Your task to perform on an android device: When is my next appointment? Image 0: 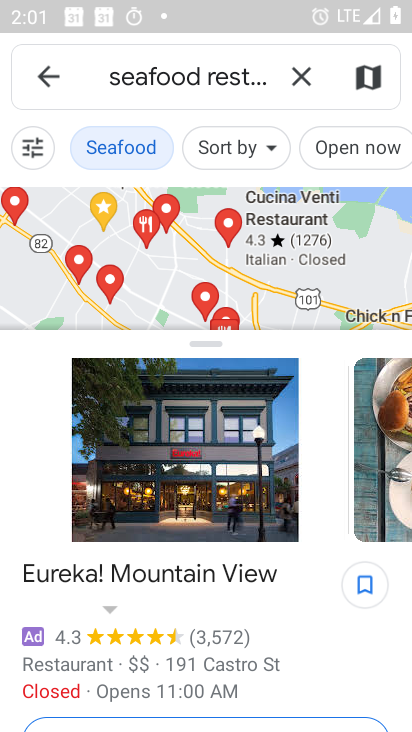
Step 0: press home button
Your task to perform on an android device: When is my next appointment? Image 1: 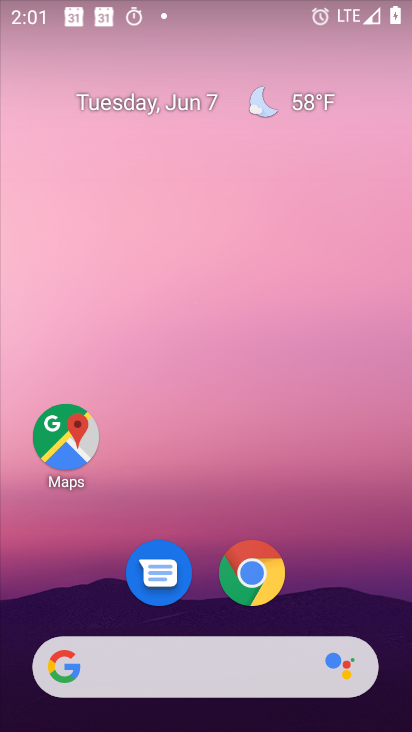
Step 1: drag from (322, 591) to (321, 121)
Your task to perform on an android device: When is my next appointment? Image 2: 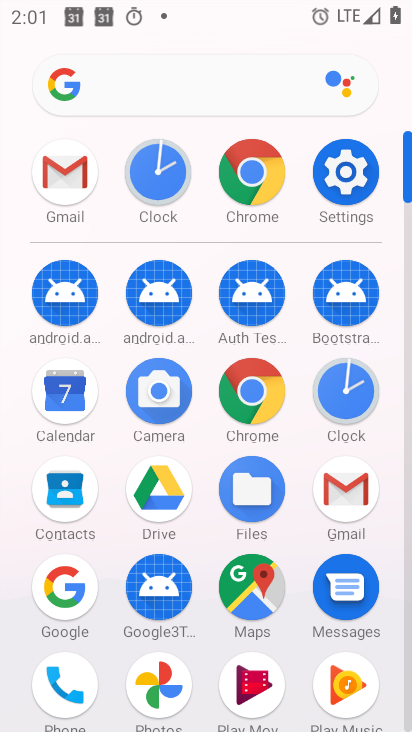
Step 2: click (63, 402)
Your task to perform on an android device: When is my next appointment? Image 3: 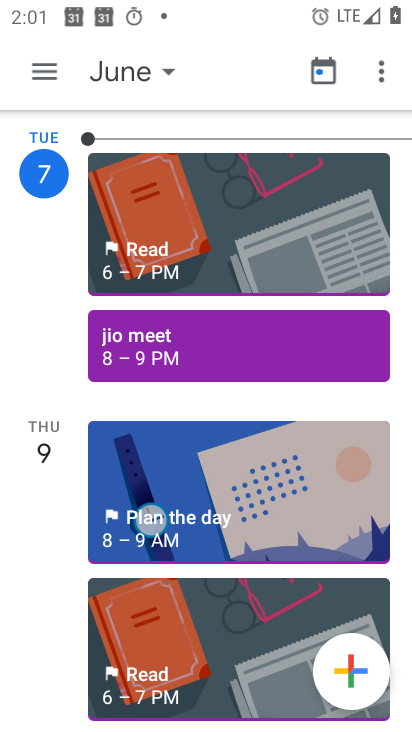
Step 3: click (115, 62)
Your task to perform on an android device: When is my next appointment? Image 4: 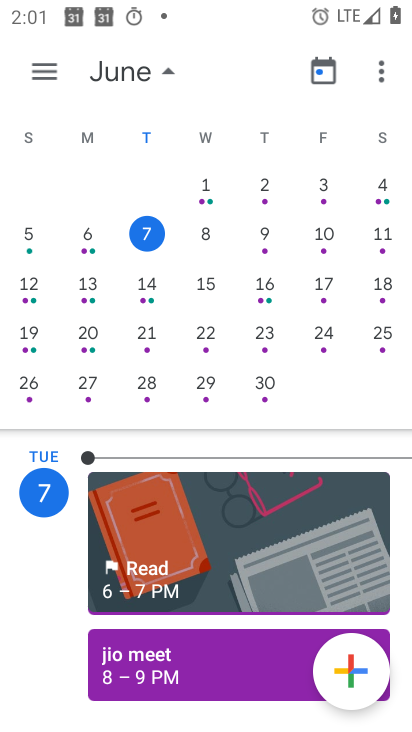
Step 4: click (146, 238)
Your task to perform on an android device: When is my next appointment? Image 5: 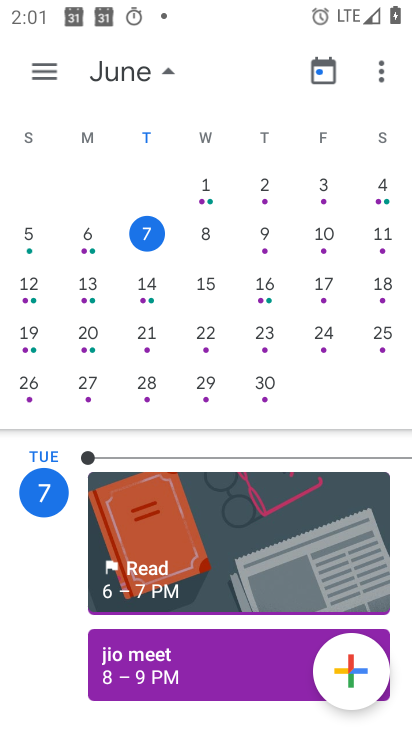
Step 5: task complete